Your task to perform on an android device: When is my next meeting? Image 0: 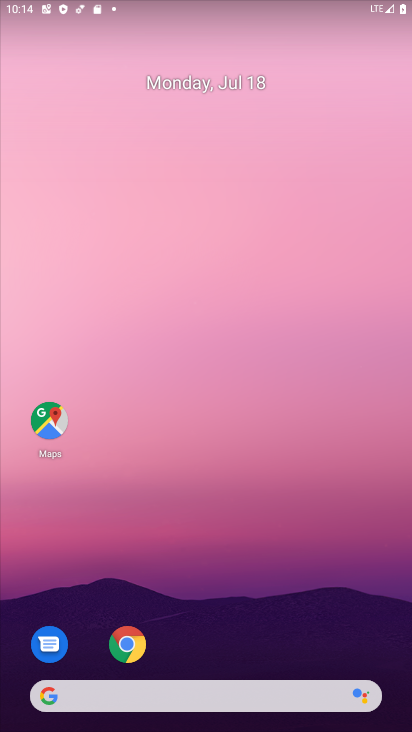
Step 0: drag from (357, 608) to (371, 176)
Your task to perform on an android device: When is my next meeting? Image 1: 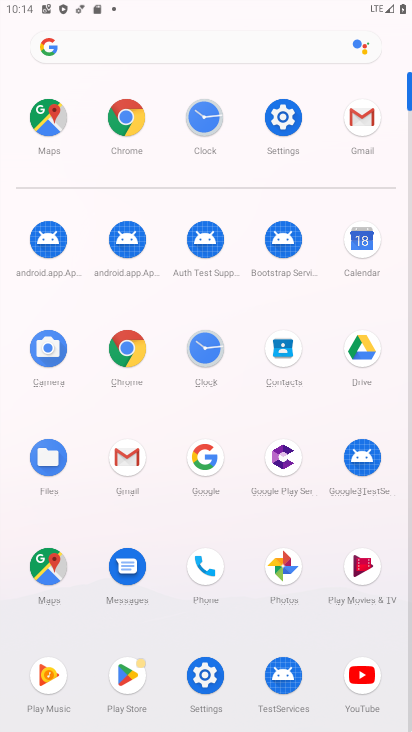
Step 1: click (362, 249)
Your task to perform on an android device: When is my next meeting? Image 2: 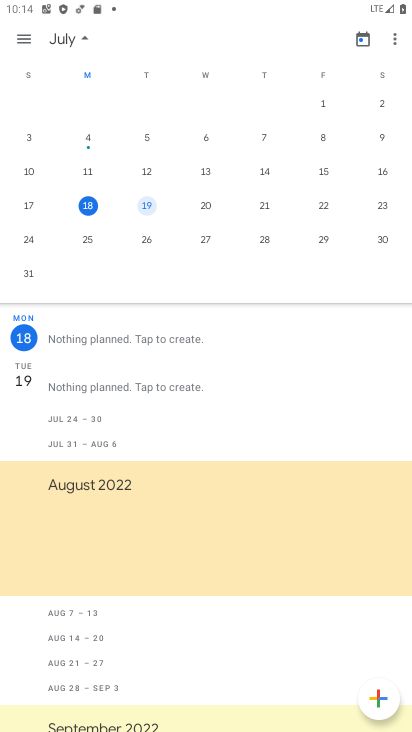
Step 2: task complete